Your task to perform on an android device: turn pop-ups on in chrome Image 0: 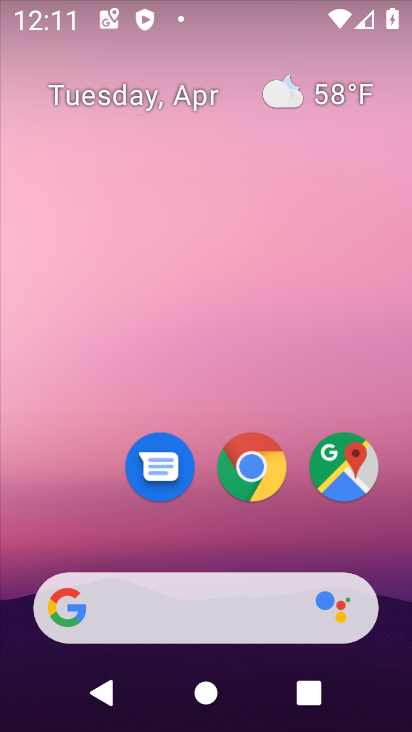
Step 0: click (255, 487)
Your task to perform on an android device: turn pop-ups on in chrome Image 1: 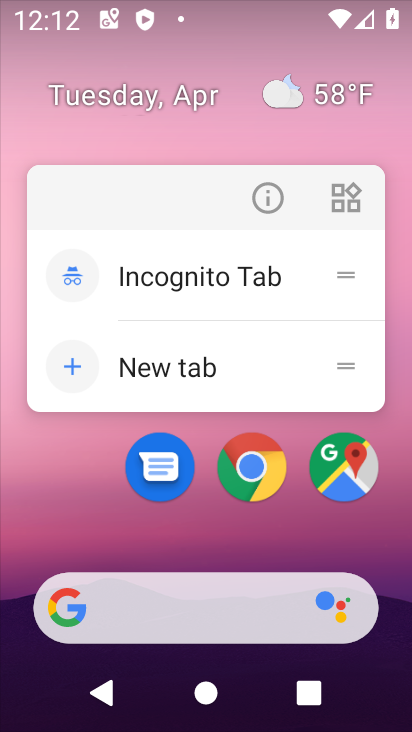
Step 1: click (250, 463)
Your task to perform on an android device: turn pop-ups on in chrome Image 2: 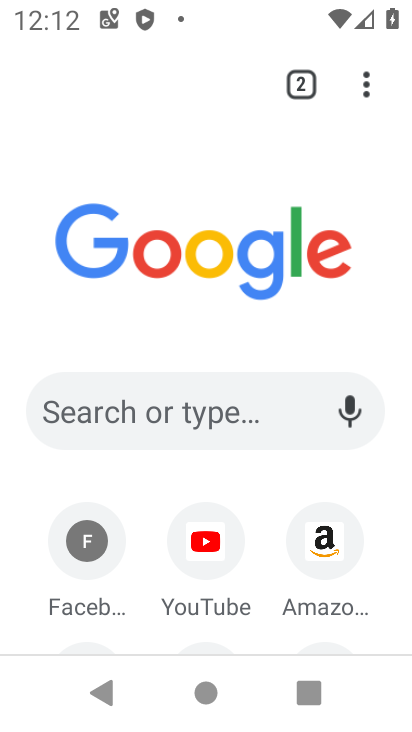
Step 2: click (365, 69)
Your task to perform on an android device: turn pop-ups on in chrome Image 3: 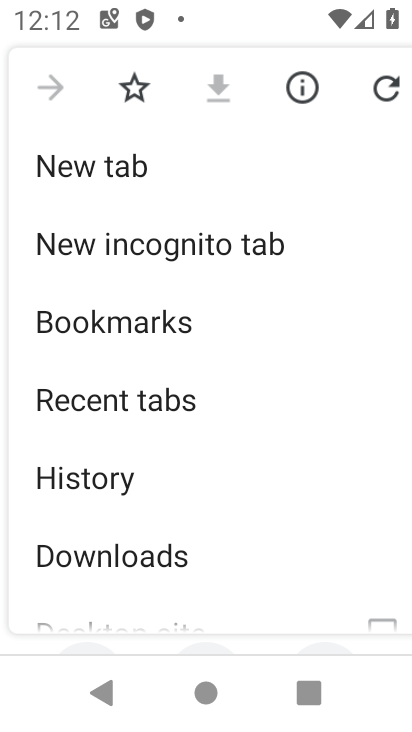
Step 3: drag from (111, 572) to (187, 54)
Your task to perform on an android device: turn pop-ups on in chrome Image 4: 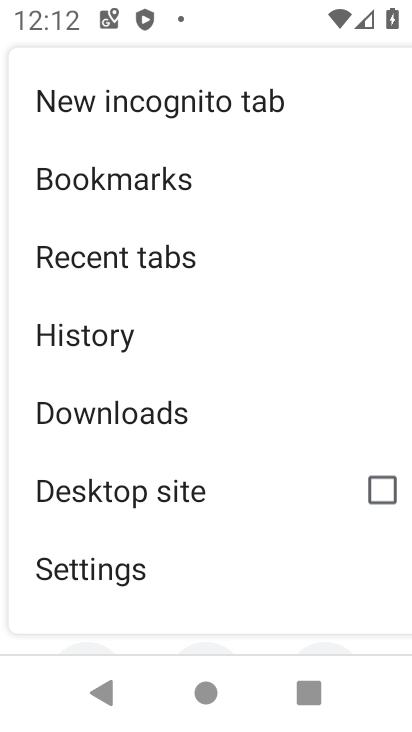
Step 4: drag from (99, 502) to (97, 148)
Your task to perform on an android device: turn pop-ups on in chrome Image 5: 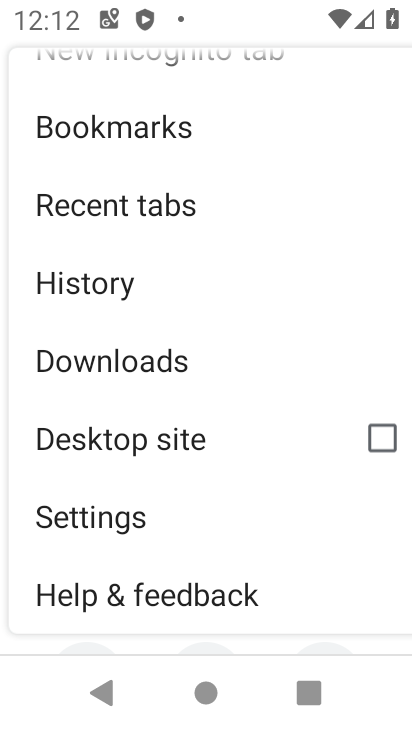
Step 5: click (137, 505)
Your task to perform on an android device: turn pop-ups on in chrome Image 6: 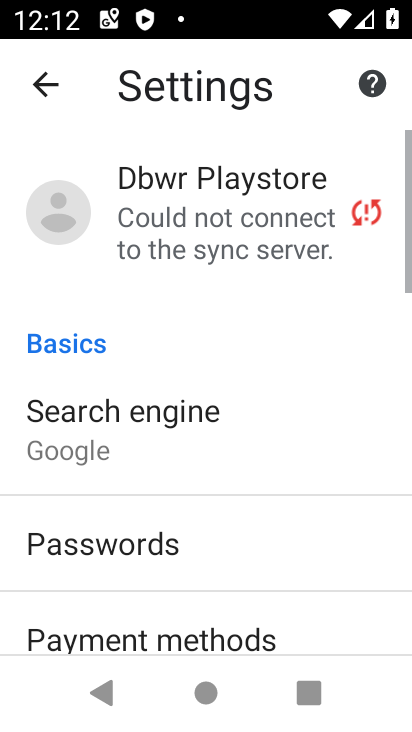
Step 6: drag from (153, 548) to (125, 0)
Your task to perform on an android device: turn pop-ups on in chrome Image 7: 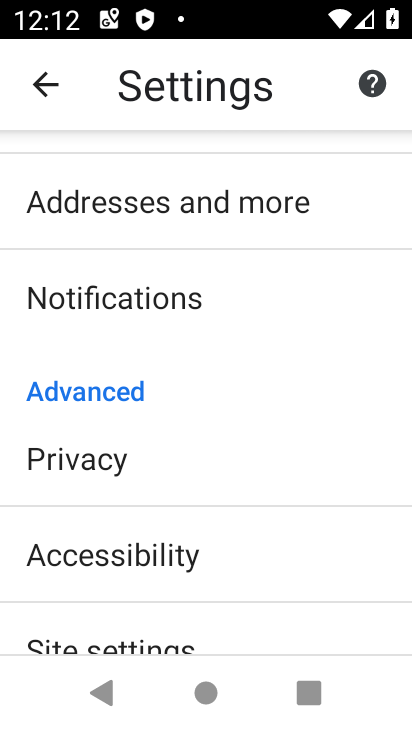
Step 7: drag from (128, 518) to (115, 70)
Your task to perform on an android device: turn pop-ups on in chrome Image 8: 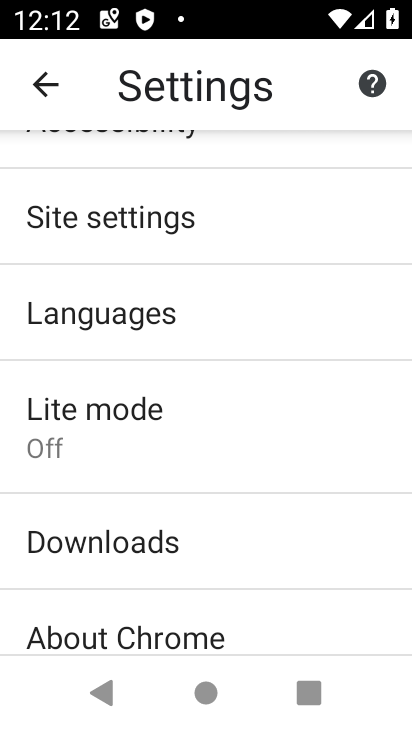
Step 8: click (158, 157)
Your task to perform on an android device: turn pop-ups on in chrome Image 9: 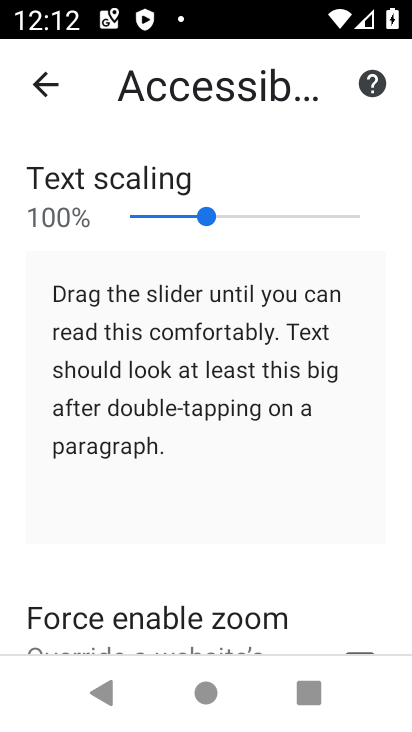
Step 9: click (33, 72)
Your task to perform on an android device: turn pop-ups on in chrome Image 10: 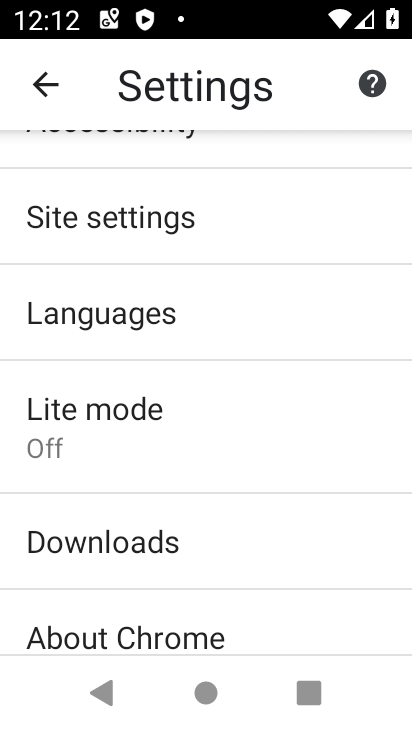
Step 10: drag from (129, 549) to (141, 136)
Your task to perform on an android device: turn pop-ups on in chrome Image 11: 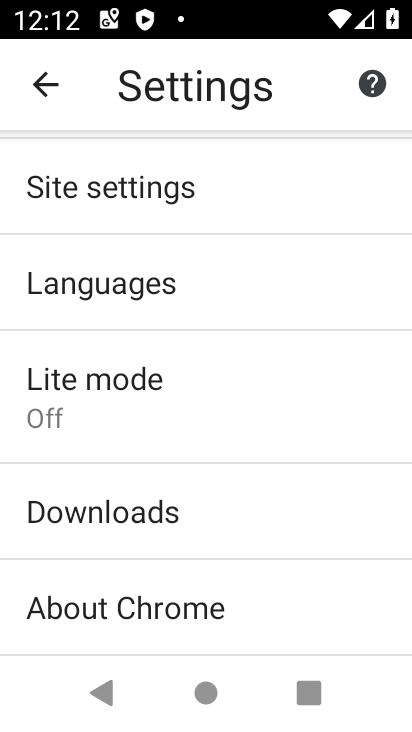
Step 11: click (173, 176)
Your task to perform on an android device: turn pop-ups on in chrome Image 12: 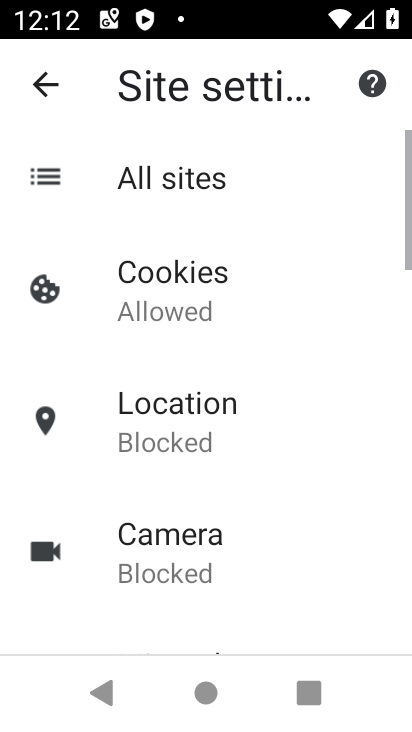
Step 12: drag from (116, 660) to (141, 185)
Your task to perform on an android device: turn pop-ups on in chrome Image 13: 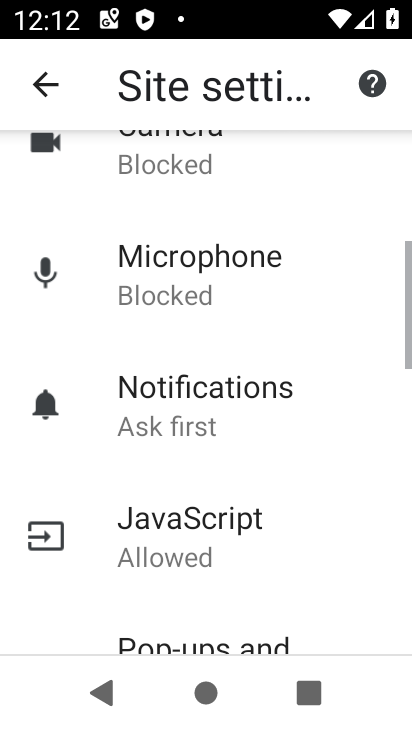
Step 13: drag from (131, 573) to (145, 79)
Your task to perform on an android device: turn pop-ups on in chrome Image 14: 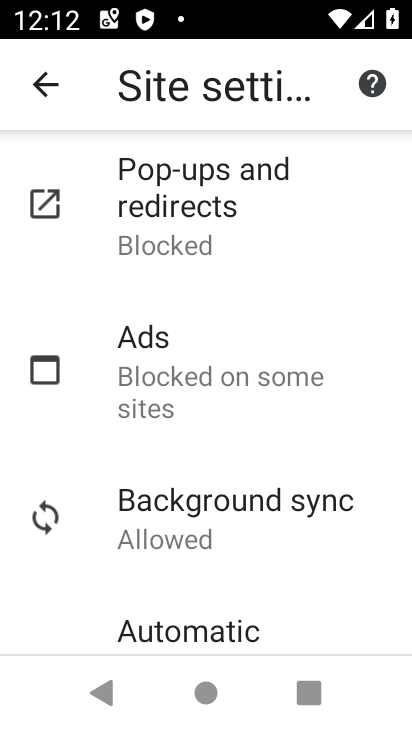
Step 14: click (167, 205)
Your task to perform on an android device: turn pop-ups on in chrome Image 15: 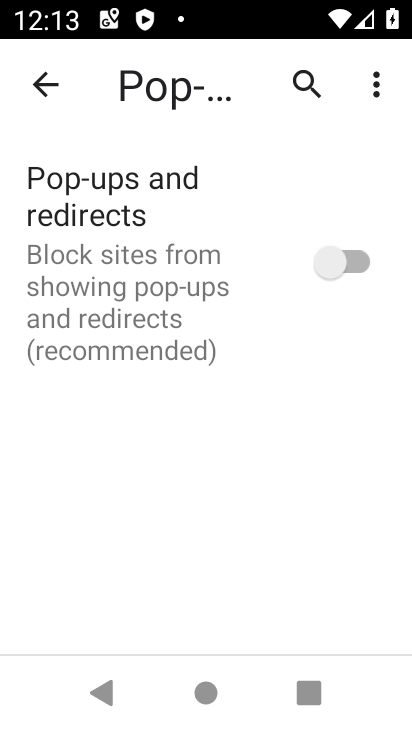
Step 15: click (368, 263)
Your task to perform on an android device: turn pop-ups on in chrome Image 16: 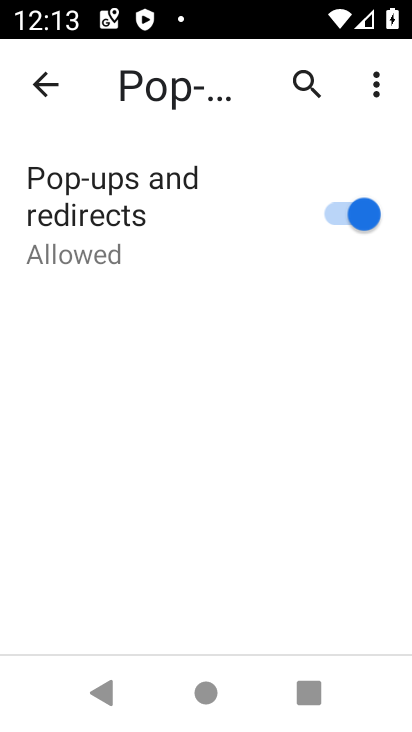
Step 16: task complete